Your task to perform on an android device: turn off sleep mode Image 0: 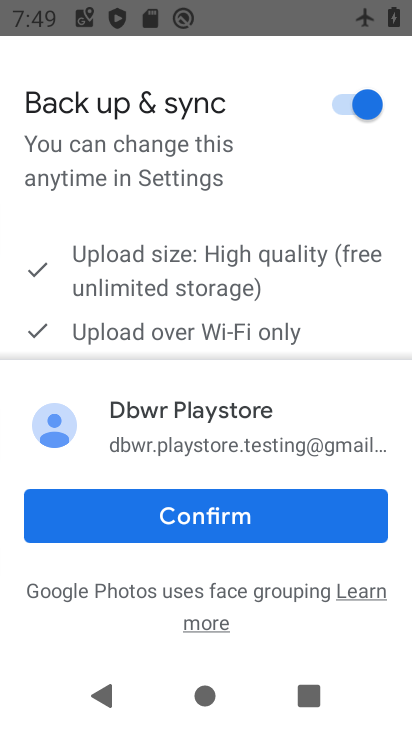
Step 0: press home button
Your task to perform on an android device: turn off sleep mode Image 1: 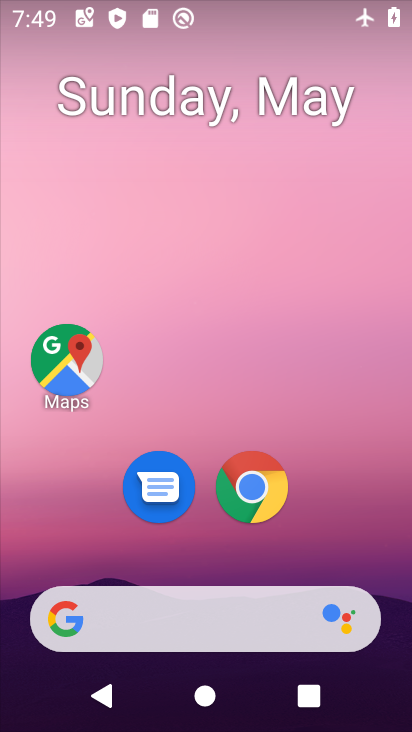
Step 1: drag from (371, 546) to (365, 230)
Your task to perform on an android device: turn off sleep mode Image 2: 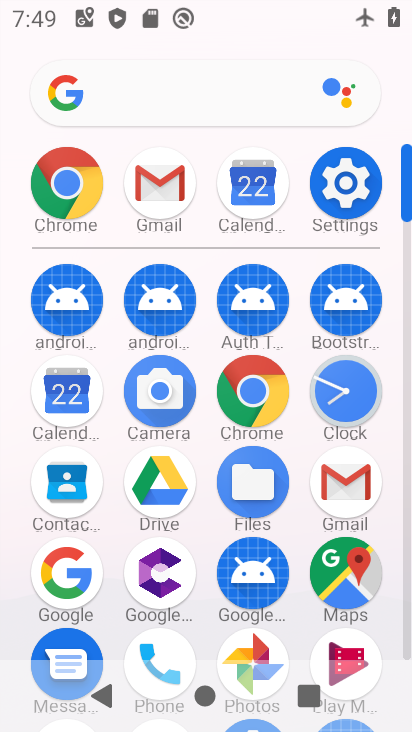
Step 2: click (352, 214)
Your task to perform on an android device: turn off sleep mode Image 3: 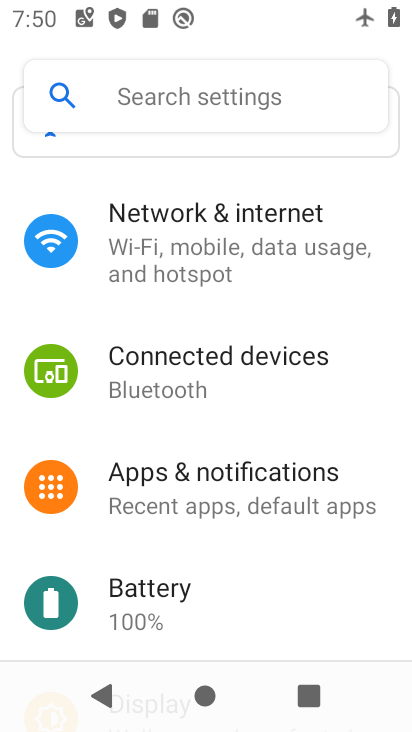
Step 3: drag from (376, 591) to (367, 473)
Your task to perform on an android device: turn off sleep mode Image 4: 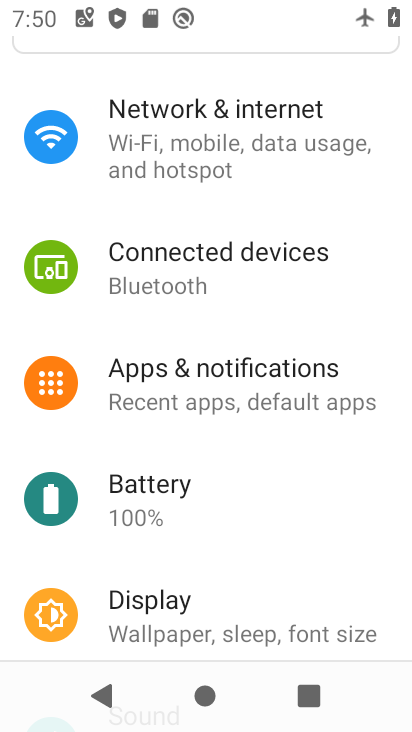
Step 4: drag from (377, 630) to (370, 456)
Your task to perform on an android device: turn off sleep mode Image 5: 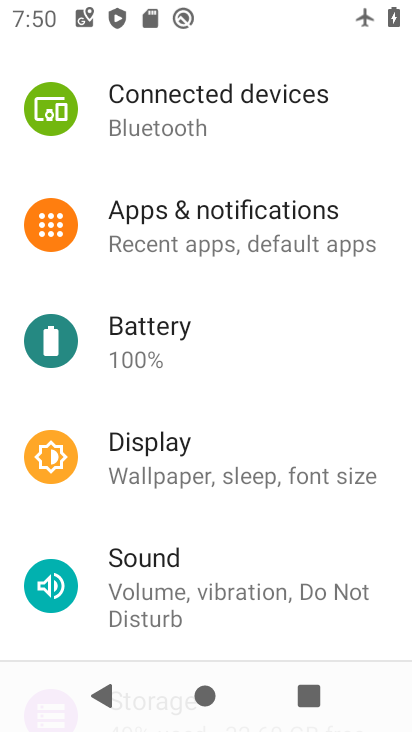
Step 5: drag from (379, 643) to (373, 528)
Your task to perform on an android device: turn off sleep mode Image 6: 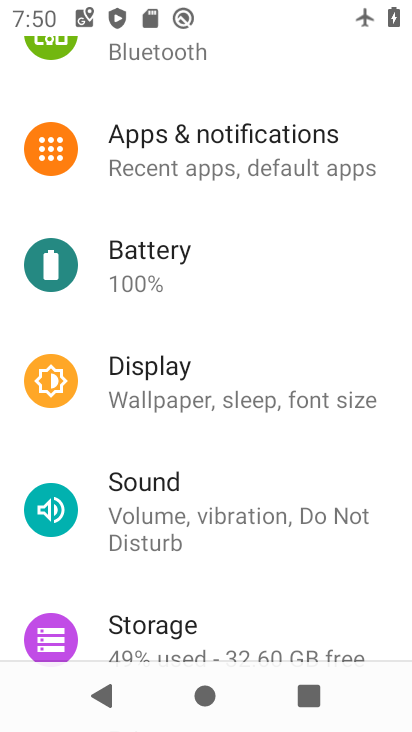
Step 6: drag from (389, 616) to (378, 544)
Your task to perform on an android device: turn off sleep mode Image 7: 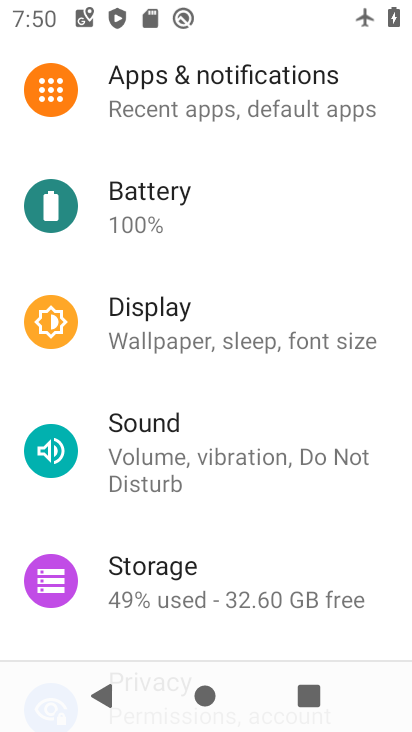
Step 7: drag from (376, 637) to (373, 557)
Your task to perform on an android device: turn off sleep mode Image 8: 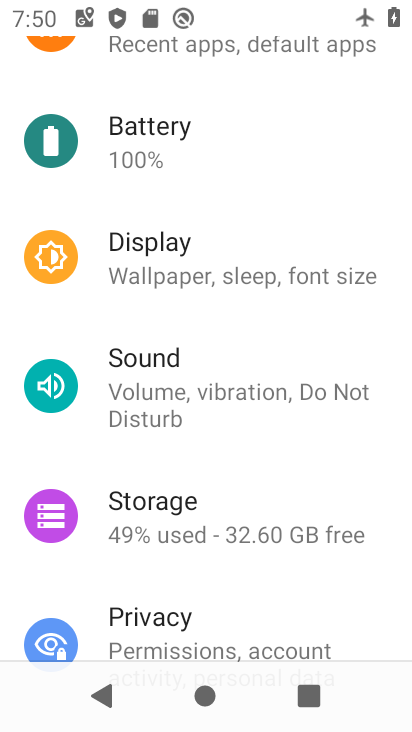
Step 8: drag from (379, 620) to (386, 520)
Your task to perform on an android device: turn off sleep mode Image 9: 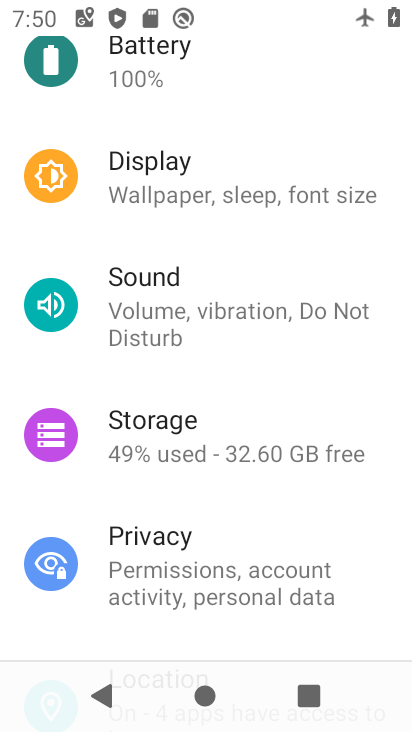
Step 9: drag from (384, 602) to (382, 515)
Your task to perform on an android device: turn off sleep mode Image 10: 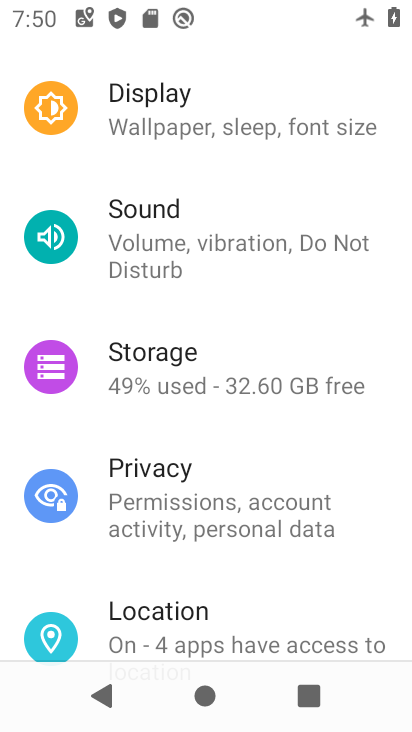
Step 10: drag from (387, 594) to (386, 513)
Your task to perform on an android device: turn off sleep mode Image 11: 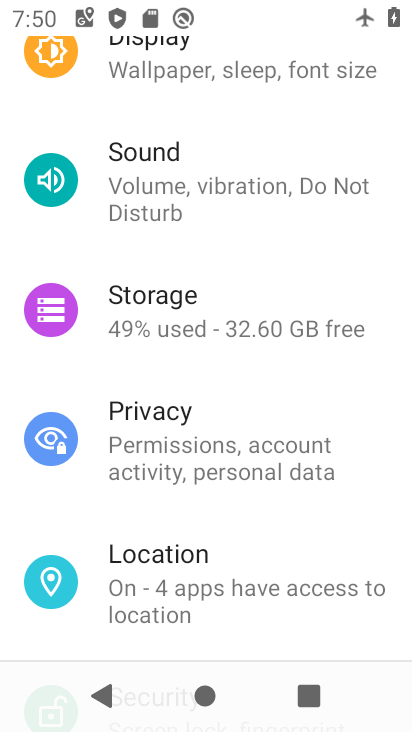
Step 11: drag from (371, 623) to (374, 536)
Your task to perform on an android device: turn off sleep mode Image 12: 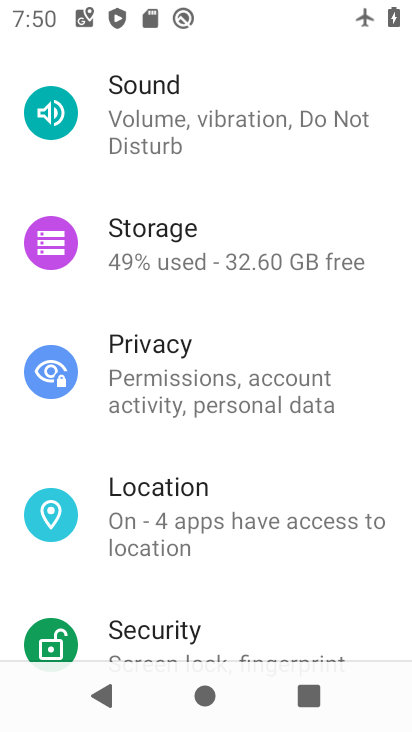
Step 12: drag from (353, 623) to (351, 548)
Your task to perform on an android device: turn off sleep mode Image 13: 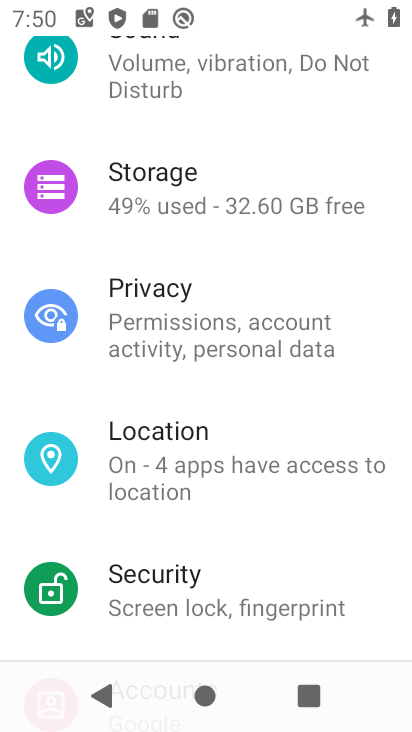
Step 13: drag from (362, 633) to (363, 538)
Your task to perform on an android device: turn off sleep mode Image 14: 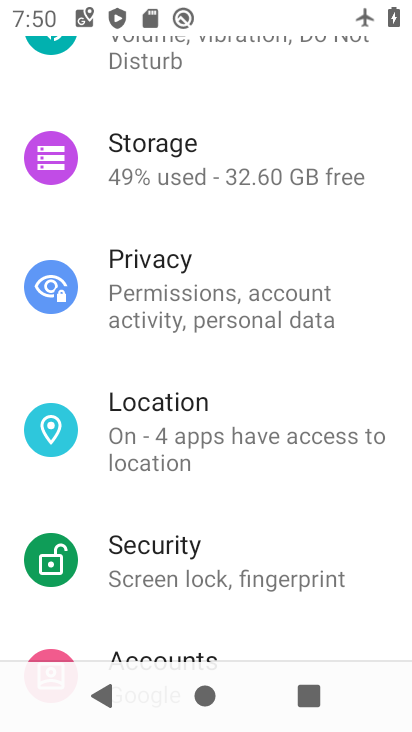
Step 14: drag from (350, 624) to (351, 535)
Your task to perform on an android device: turn off sleep mode Image 15: 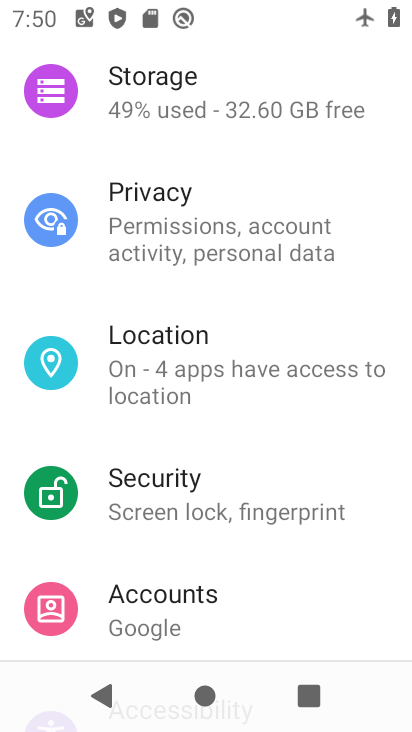
Step 15: drag from (363, 580) to (363, 515)
Your task to perform on an android device: turn off sleep mode Image 16: 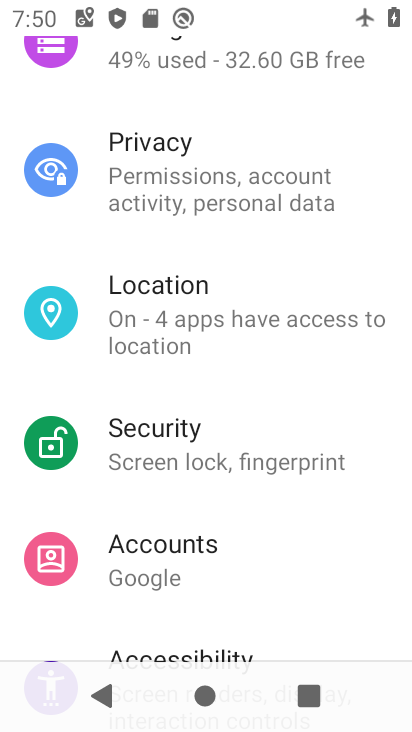
Step 16: drag from (367, 607) to (366, 529)
Your task to perform on an android device: turn off sleep mode Image 17: 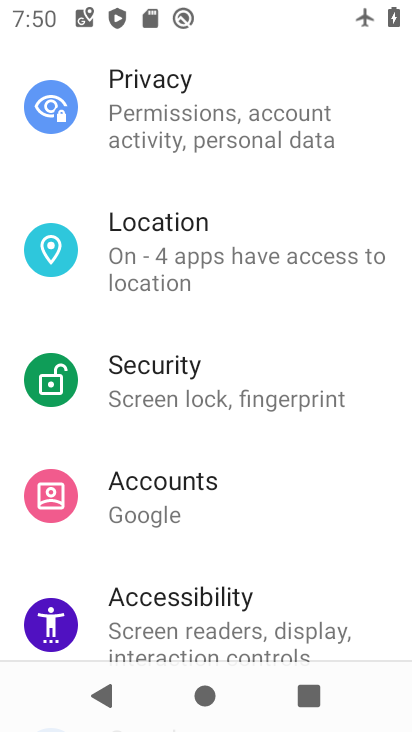
Step 17: drag from (375, 629) to (369, 553)
Your task to perform on an android device: turn off sleep mode Image 18: 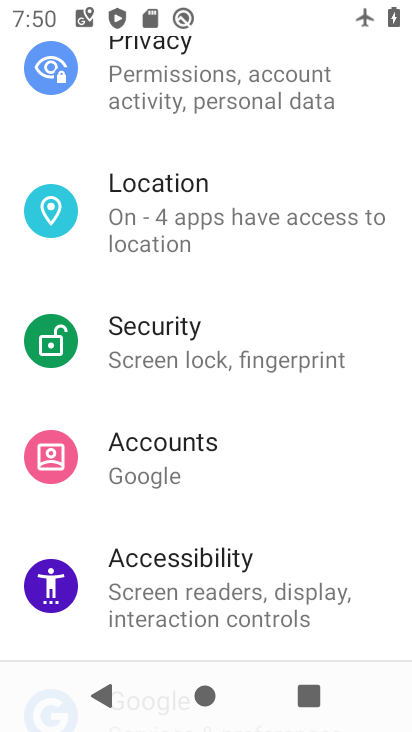
Step 18: drag from (374, 630) to (366, 542)
Your task to perform on an android device: turn off sleep mode Image 19: 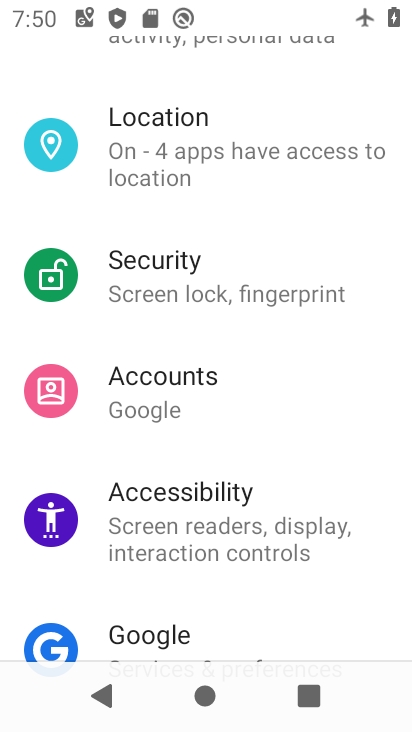
Step 19: drag from (363, 608) to (361, 522)
Your task to perform on an android device: turn off sleep mode Image 20: 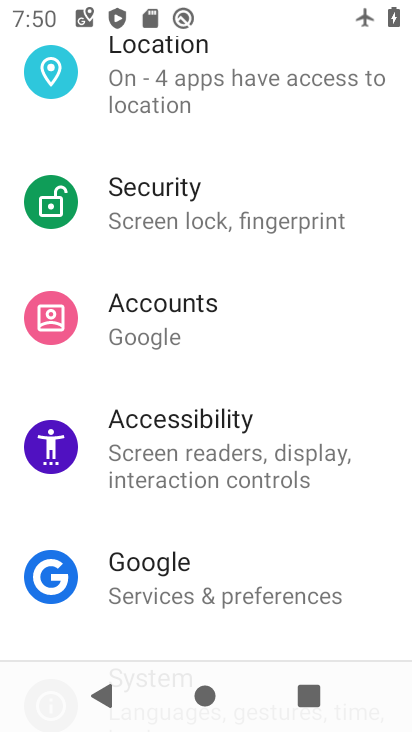
Step 20: drag from (362, 431) to (372, 531)
Your task to perform on an android device: turn off sleep mode Image 21: 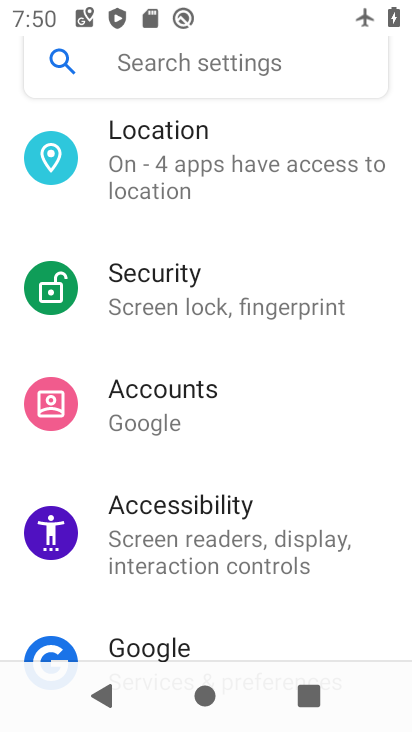
Step 21: drag from (374, 409) to (374, 489)
Your task to perform on an android device: turn off sleep mode Image 22: 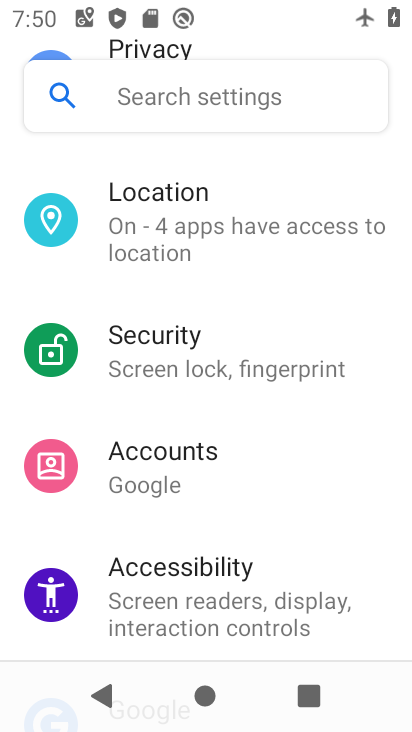
Step 22: drag from (373, 383) to (370, 454)
Your task to perform on an android device: turn off sleep mode Image 23: 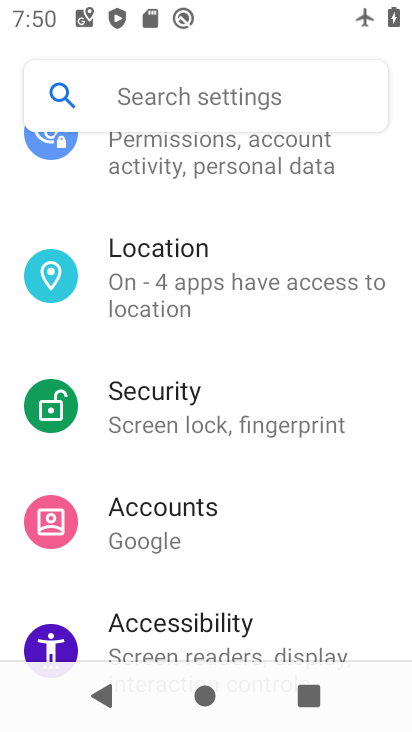
Step 23: drag from (369, 379) to (378, 446)
Your task to perform on an android device: turn off sleep mode Image 24: 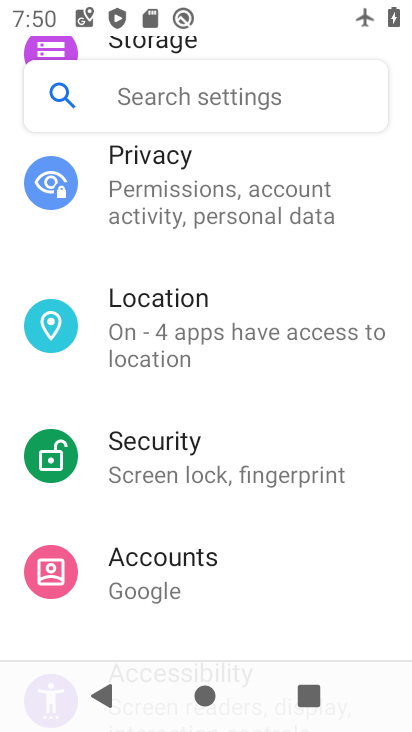
Step 24: drag from (360, 384) to (362, 464)
Your task to perform on an android device: turn off sleep mode Image 25: 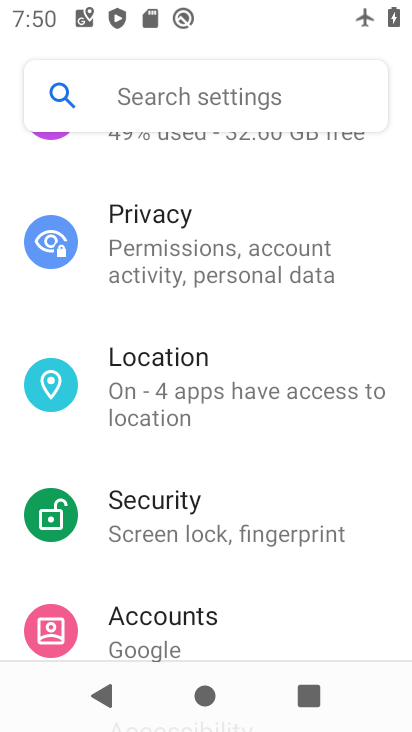
Step 25: drag from (370, 385) to (372, 448)
Your task to perform on an android device: turn off sleep mode Image 26: 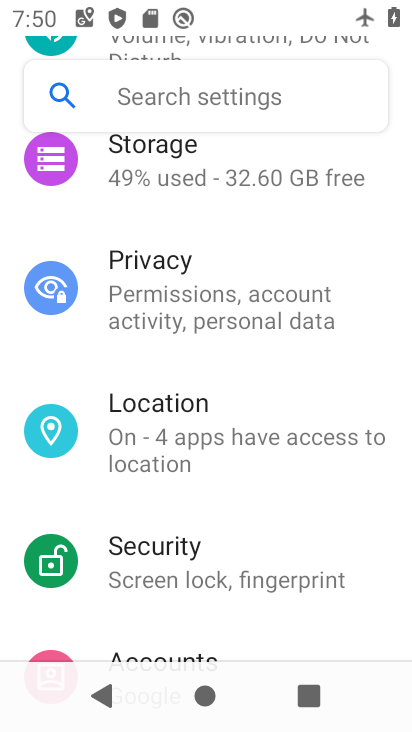
Step 26: drag from (379, 345) to (377, 449)
Your task to perform on an android device: turn off sleep mode Image 27: 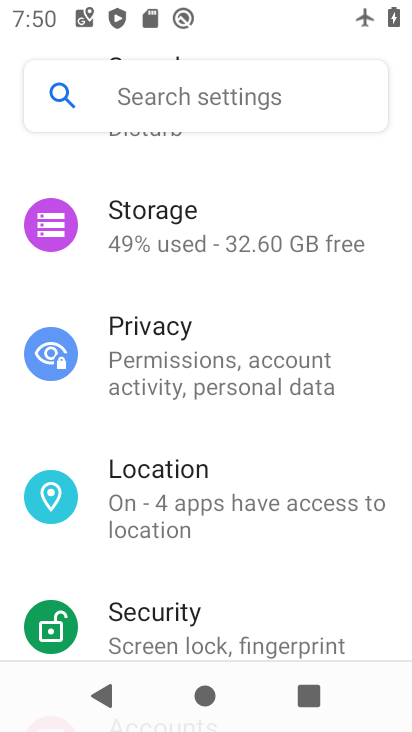
Step 27: drag from (374, 359) to (381, 448)
Your task to perform on an android device: turn off sleep mode Image 28: 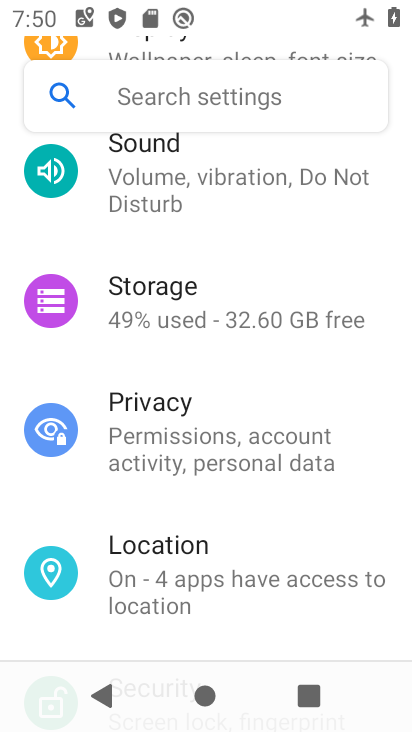
Step 28: drag from (389, 353) to (391, 436)
Your task to perform on an android device: turn off sleep mode Image 29: 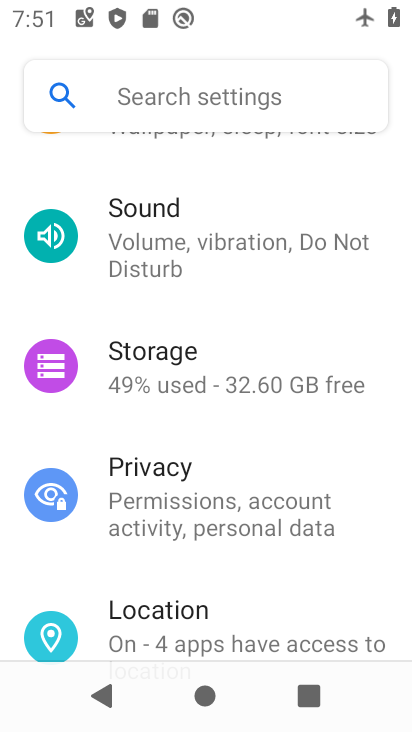
Step 29: drag from (393, 341) to (382, 431)
Your task to perform on an android device: turn off sleep mode Image 30: 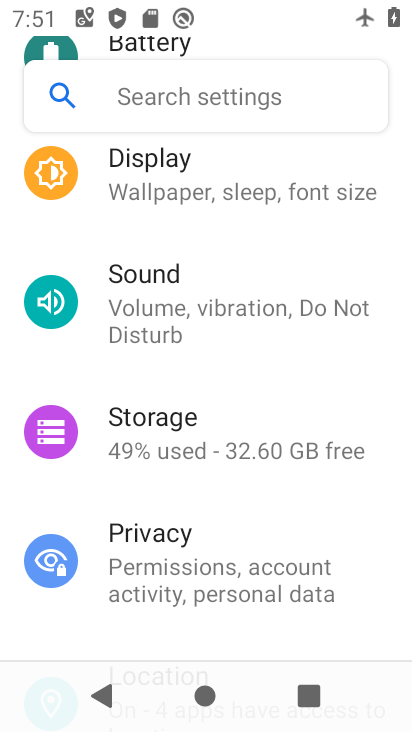
Step 30: drag from (388, 363) to (393, 434)
Your task to perform on an android device: turn off sleep mode Image 31: 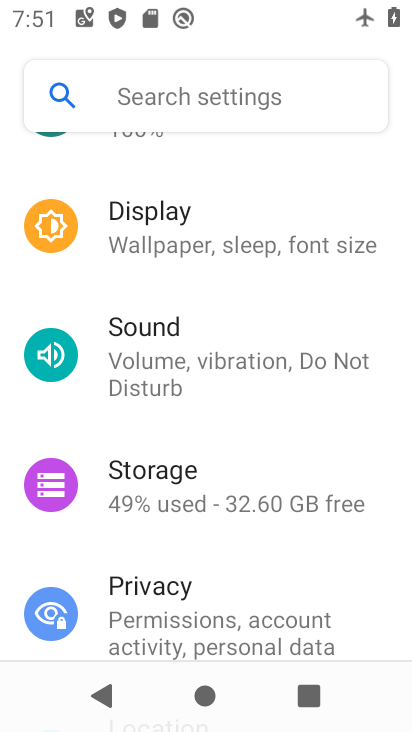
Step 31: drag from (388, 331) to (379, 459)
Your task to perform on an android device: turn off sleep mode Image 32: 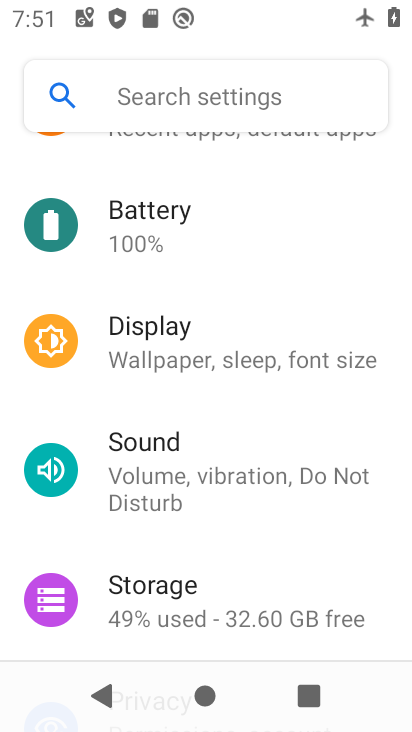
Step 32: click (330, 357)
Your task to perform on an android device: turn off sleep mode Image 33: 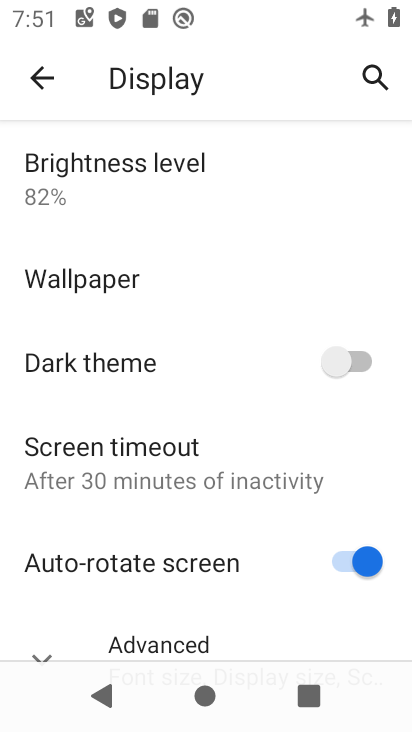
Step 33: drag from (256, 589) to (260, 413)
Your task to perform on an android device: turn off sleep mode Image 34: 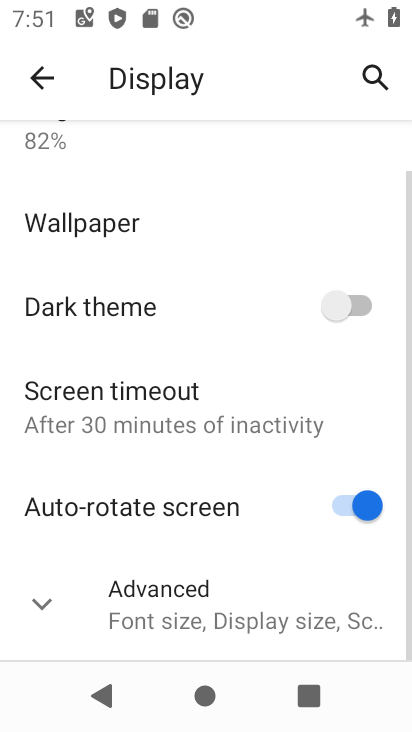
Step 34: click (260, 618)
Your task to perform on an android device: turn off sleep mode Image 35: 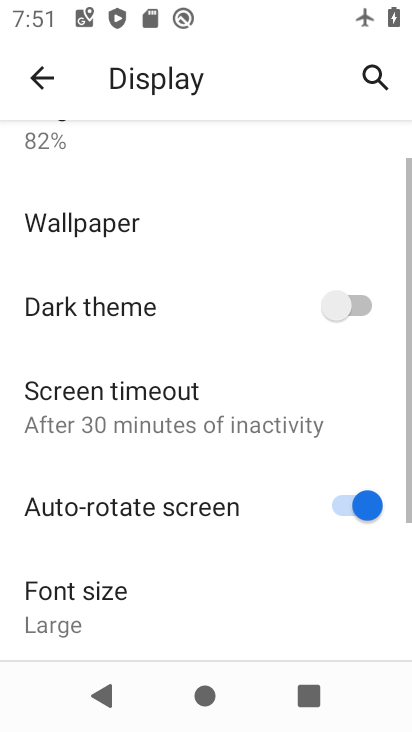
Step 35: task complete